Your task to perform on an android device: refresh tabs in the chrome app Image 0: 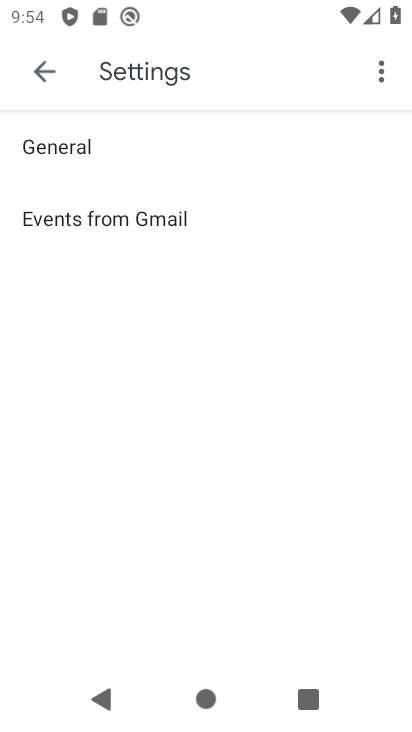
Step 0: press home button
Your task to perform on an android device: refresh tabs in the chrome app Image 1: 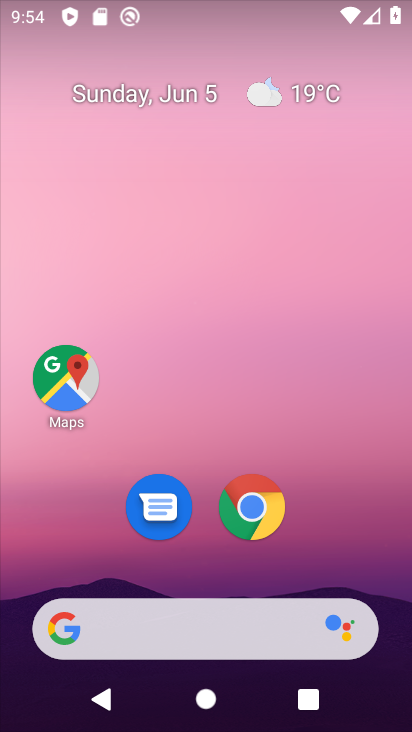
Step 1: click (248, 509)
Your task to perform on an android device: refresh tabs in the chrome app Image 2: 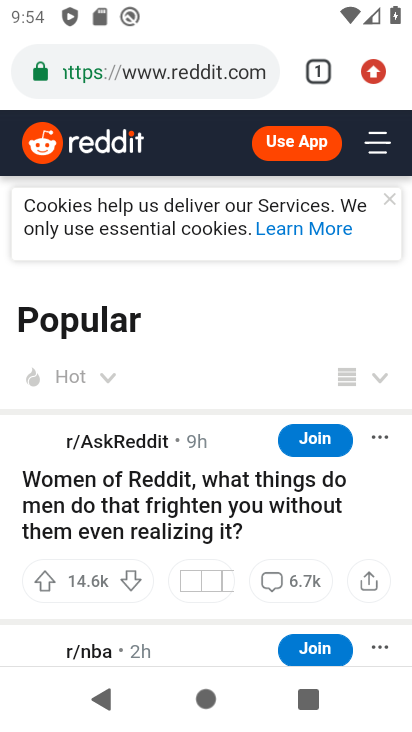
Step 2: click (374, 55)
Your task to perform on an android device: refresh tabs in the chrome app Image 3: 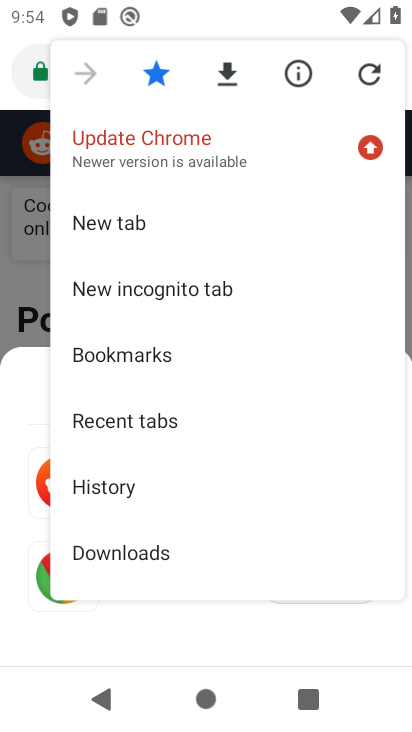
Step 3: click (369, 79)
Your task to perform on an android device: refresh tabs in the chrome app Image 4: 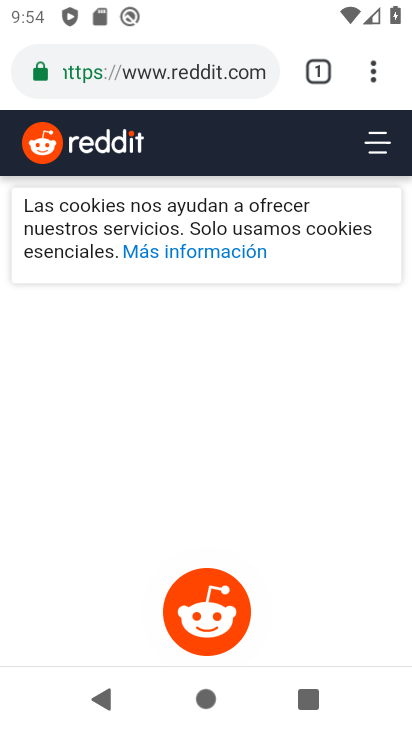
Step 4: task complete